Your task to perform on an android device: turn off location history Image 0: 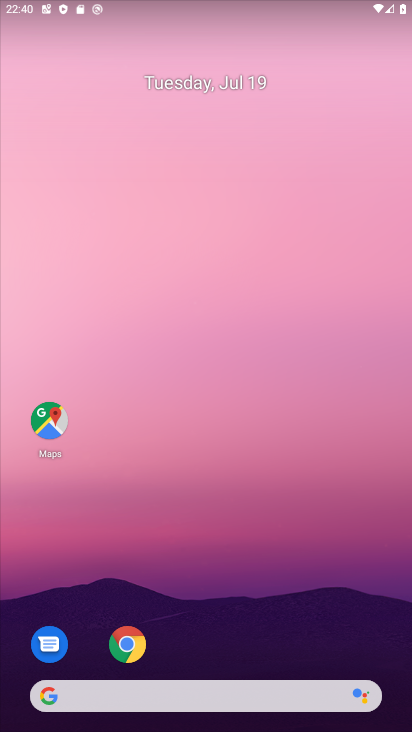
Step 0: drag from (218, 727) to (208, 359)
Your task to perform on an android device: turn off location history Image 1: 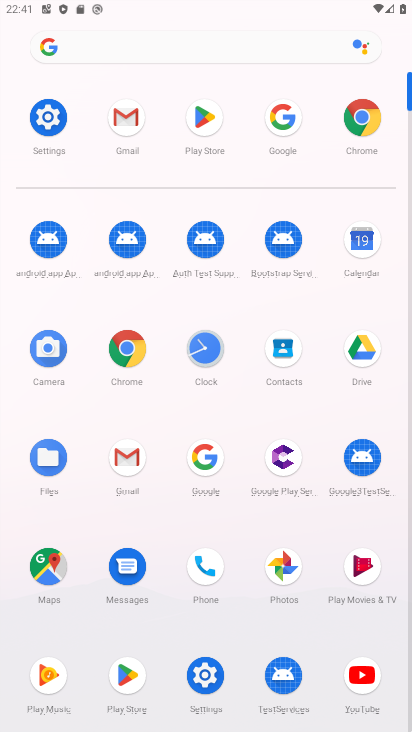
Step 1: click (47, 120)
Your task to perform on an android device: turn off location history Image 2: 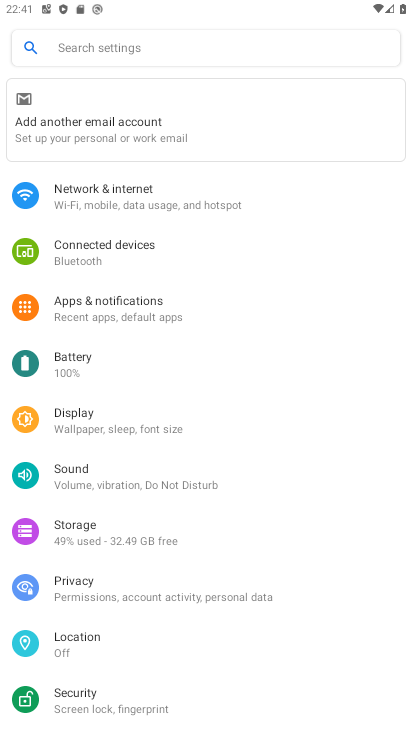
Step 2: click (80, 636)
Your task to perform on an android device: turn off location history Image 3: 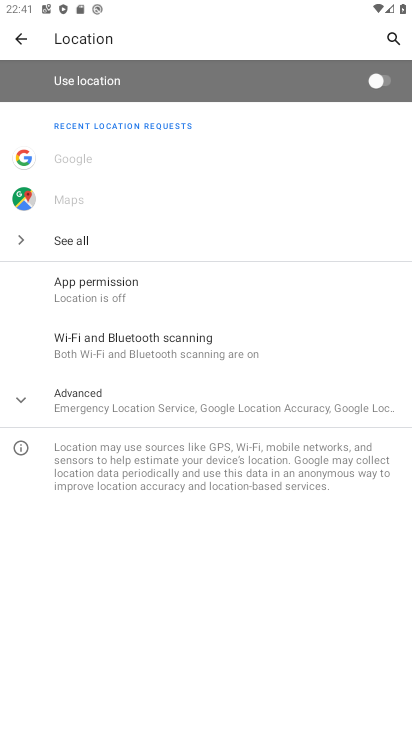
Step 3: click (89, 404)
Your task to perform on an android device: turn off location history Image 4: 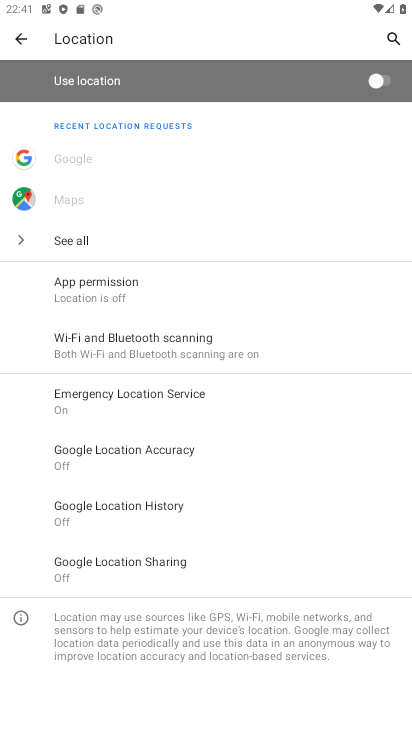
Step 4: click (134, 503)
Your task to perform on an android device: turn off location history Image 5: 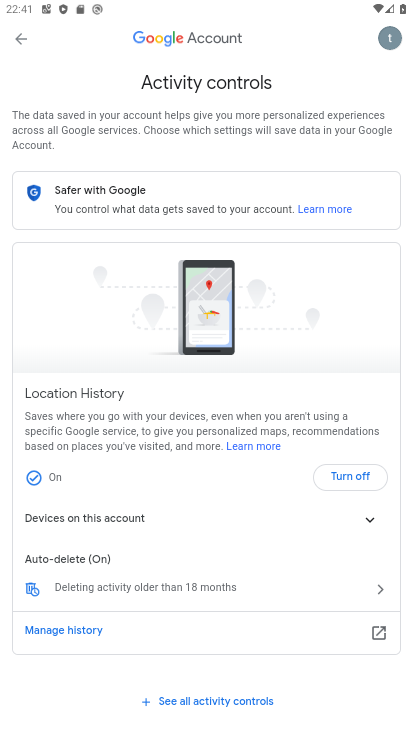
Step 5: click (352, 475)
Your task to perform on an android device: turn off location history Image 6: 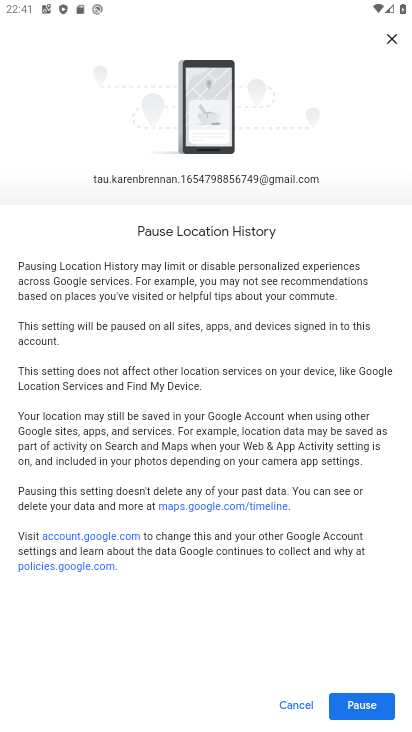
Step 6: click (365, 705)
Your task to perform on an android device: turn off location history Image 7: 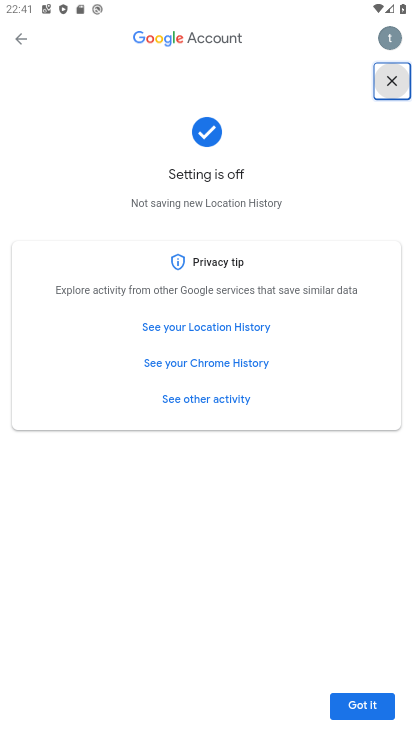
Step 7: task complete